Your task to perform on an android device: Open accessibility settings Image 0: 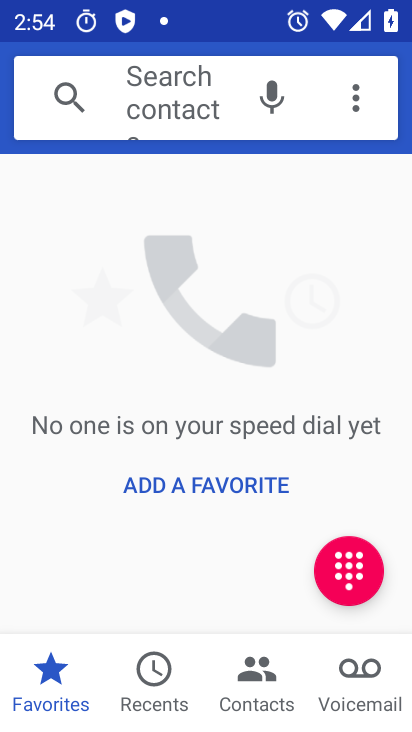
Step 0: press home button
Your task to perform on an android device: Open accessibility settings Image 1: 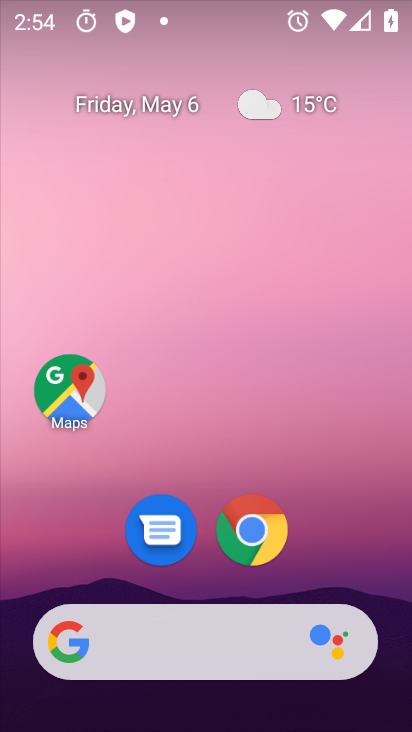
Step 1: drag from (366, 569) to (303, 77)
Your task to perform on an android device: Open accessibility settings Image 2: 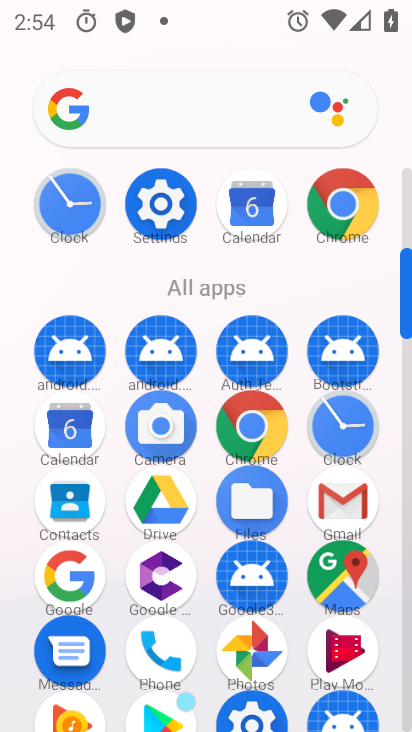
Step 2: click (177, 220)
Your task to perform on an android device: Open accessibility settings Image 3: 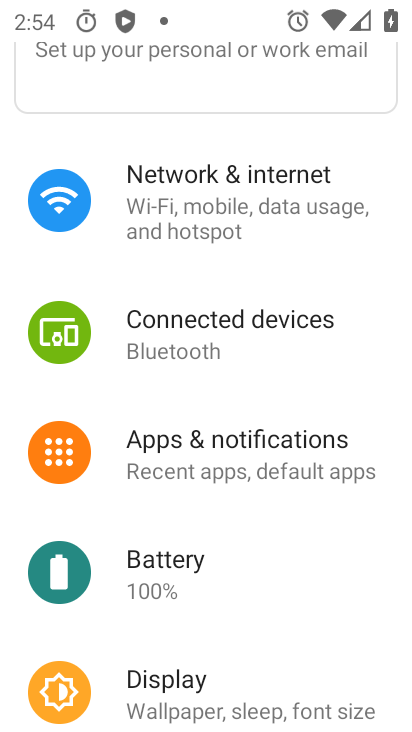
Step 3: drag from (249, 538) to (299, 157)
Your task to perform on an android device: Open accessibility settings Image 4: 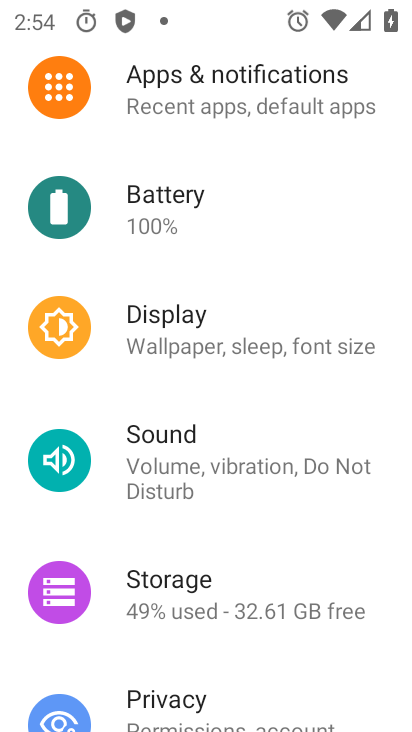
Step 4: drag from (277, 386) to (297, 689)
Your task to perform on an android device: Open accessibility settings Image 5: 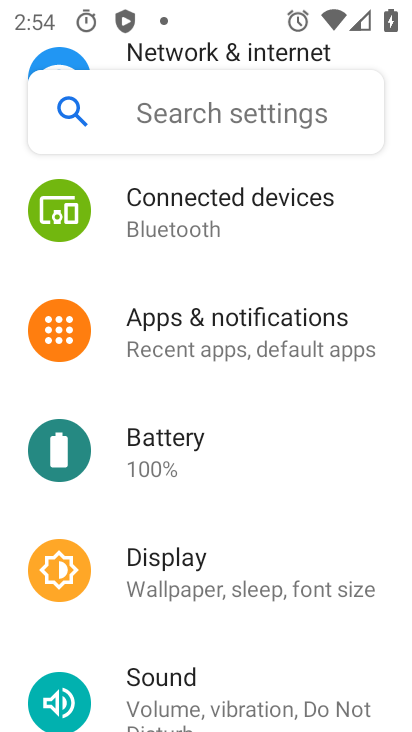
Step 5: drag from (271, 713) to (300, 320)
Your task to perform on an android device: Open accessibility settings Image 6: 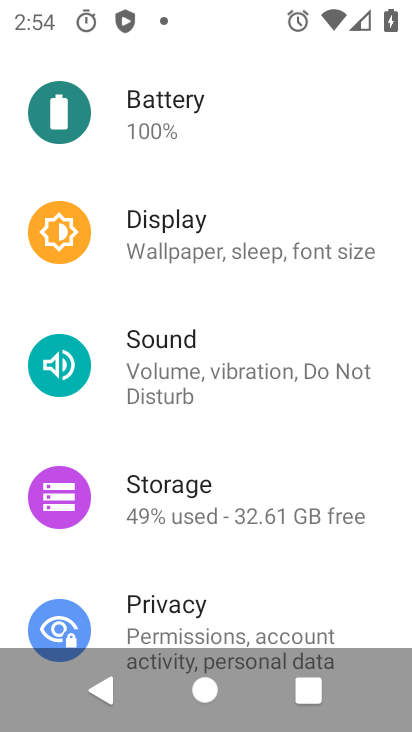
Step 6: drag from (218, 630) to (256, 249)
Your task to perform on an android device: Open accessibility settings Image 7: 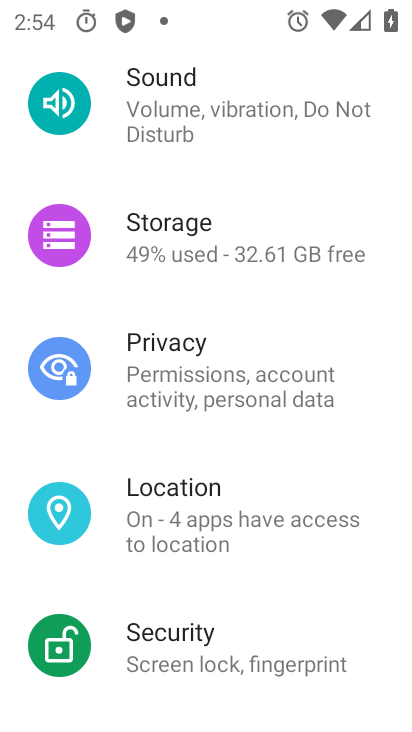
Step 7: drag from (222, 657) to (219, 249)
Your task to perform on an android device: Open accessibility settings Image 8: 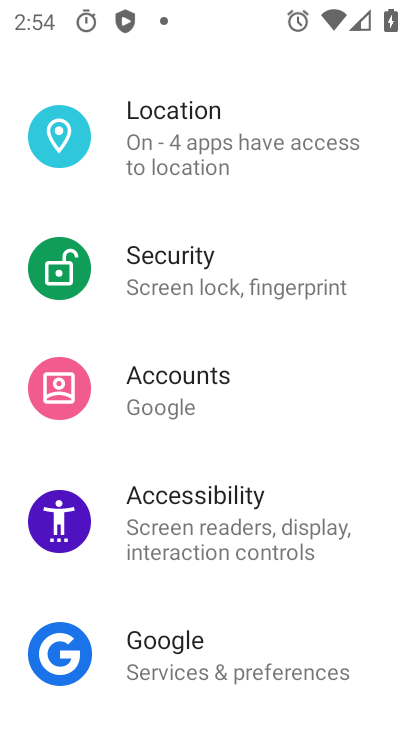
Step 8: click (167, 547)
Your task to perform on an android device: Open accessibility settings Image 9: 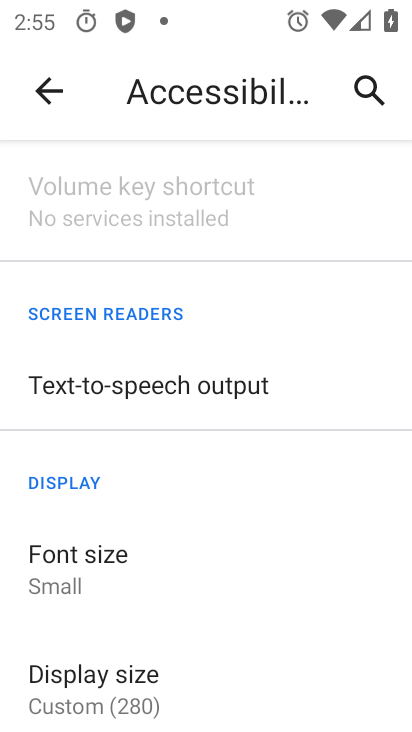
Step 9: task complete